Your task to perform on an android device: What's the weather going to be tomorrow? Image 0: 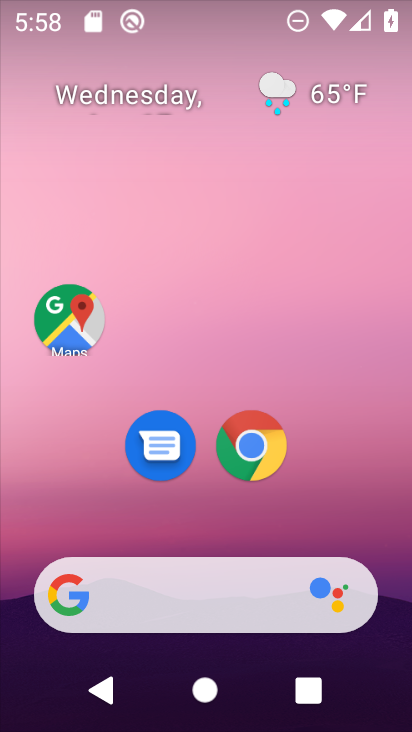
Step 0: drag from (196, 522) to (193, 90)
Your task to perform on an android device: What's the weather going to be tomorrow? Image 1: 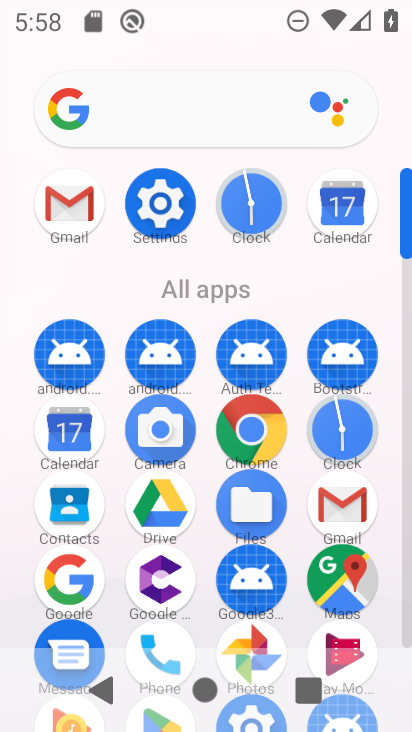
Step 1: click (78, 576)
Your task to perform on an android device: What's the weather going to be tomorrow? Image 2: 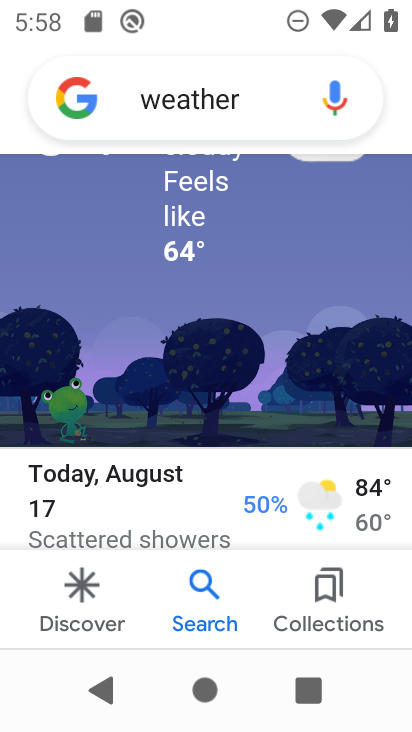
Step 2: drag from (209, 471) to (222, 224)
Your task to perform on an android device: What's the weather going to be tomorrow? Image 3: 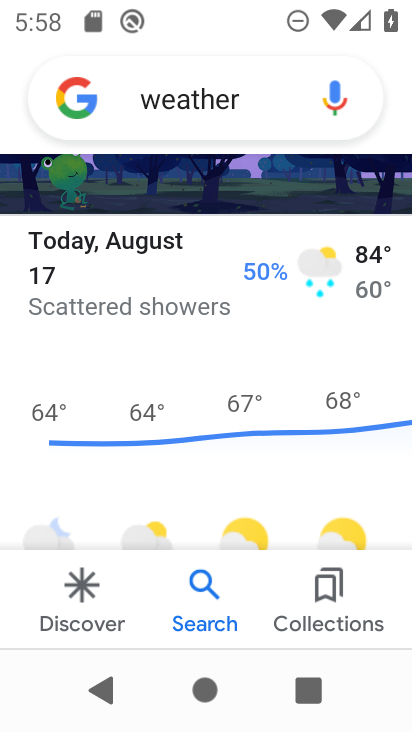
Step 3: drag from (222, 202) to (231, 486)
Your task to perform on an android device: What's the weather going to be tomorrow? Image 4: 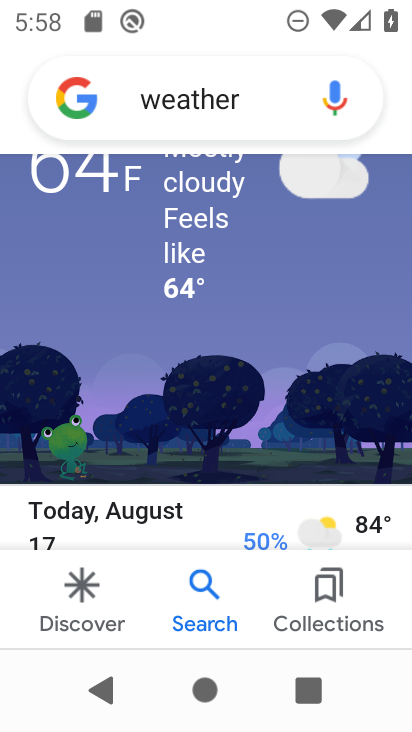
Step 4: drag from (225, 216) to (227, 505)
Your task to perform on an android device: What's the weather going to be tomorrow? Image 5: 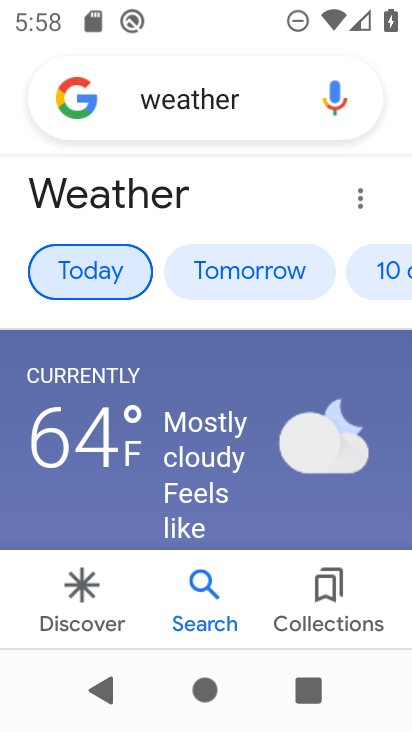
Step 5: click (215, 278)
Your task to perform on an android device: What's the weather going to be tomorrow? Image 6: 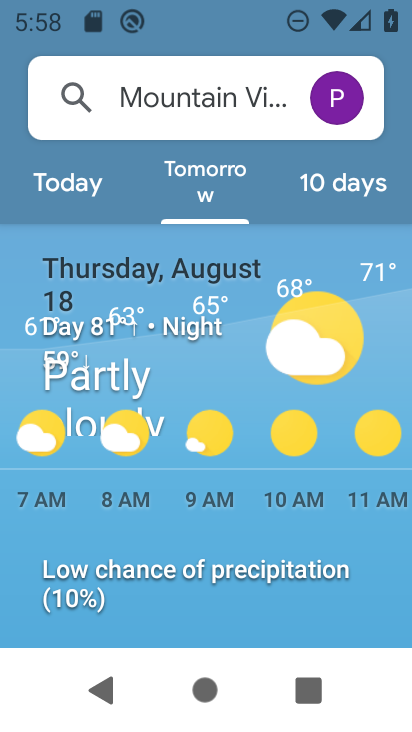
Step 6: task complete